Your task to perform on an android device: Clear the shopping cart on amazon. Image 0: 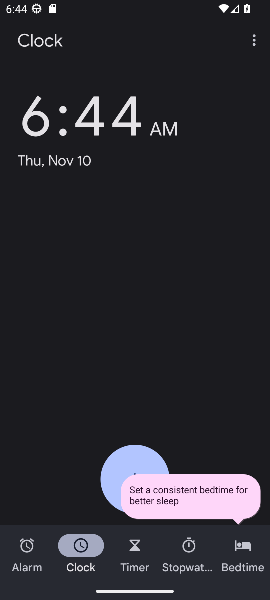
Step 0: press home button
Your task to perform on an android device: Clear the shopping cart on amazon. Image 1: 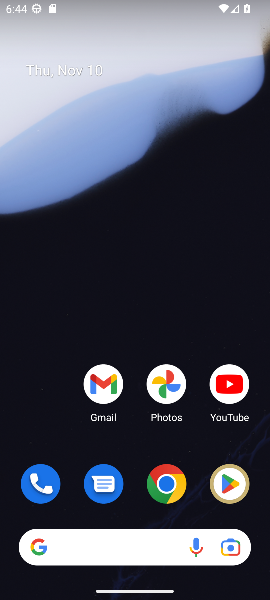
Step 1: click (166, 484)
Your task to perform on an android device: Clear the shopping cart on amazon. Image 2: 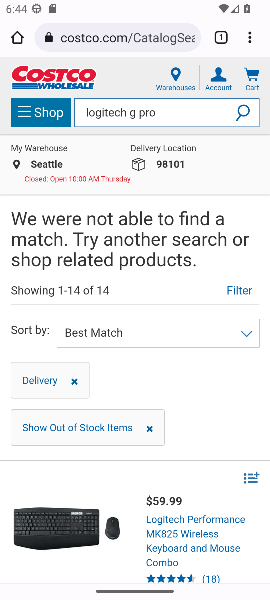
Step 2: click (121, 37)
Your task to perform on an android device: Clear the shopping cart on amazon. Image 3: 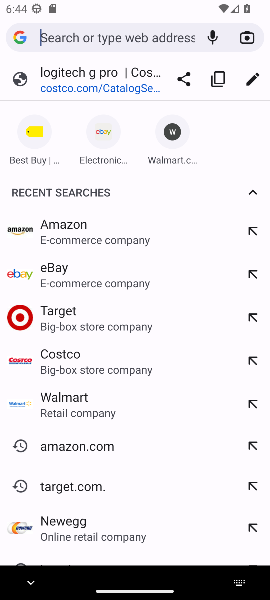
Step 3: click (81, 448)
Your task to perform on an android device: Clear the shopping cart on amazon. Image 4: 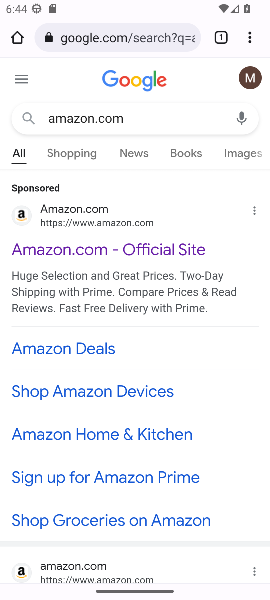
Step 4: drag from (133, 449) to (119, 305)
Your task to perform on an android device: Clear the shopping cart on amazon. Image 5: 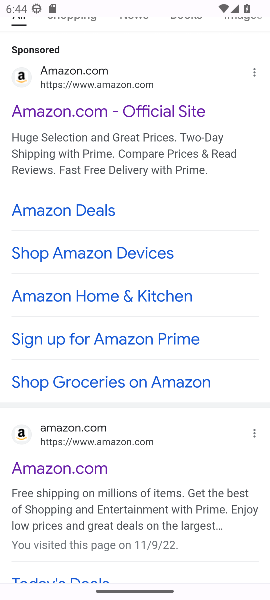
Step 5: click (32, 443)
Your task to perform on an android device: Clear the shopping cart on amazon. Image 6: 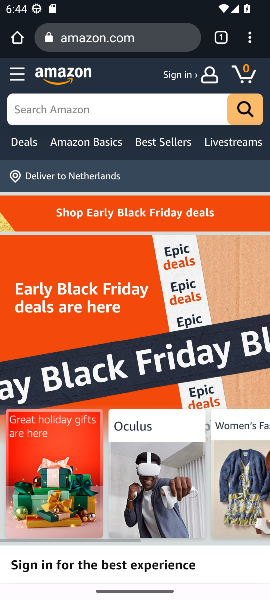
Step 6: click (244, 78)
Your task to perform on an android device: Clear the shopping cart on amazon. Image 7: 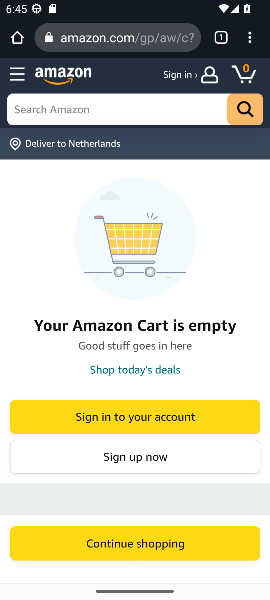
Step 7: task complete